Your task to perform on an android device: change the clock display to analog Image 0: 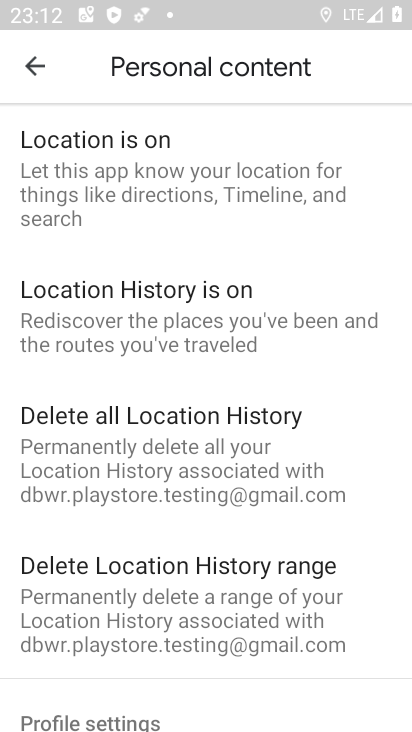
Step 0: click (41, 59)
Your task to perform on an android device: change the clock display to analog Image 1: 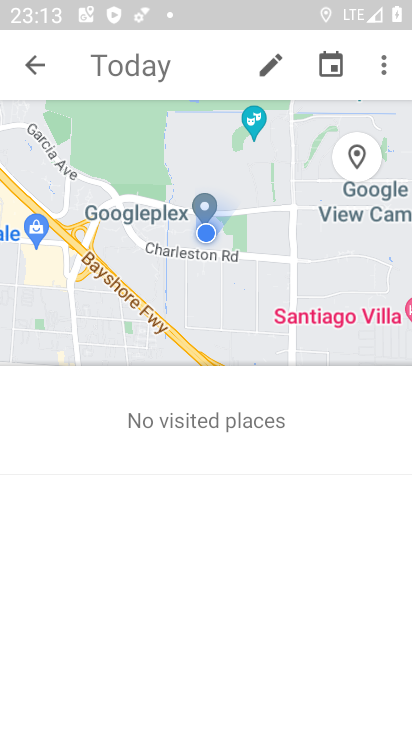
Step 1: click (36, 56)
Your task to perform on an android device: change the clock display to analog Image 2: 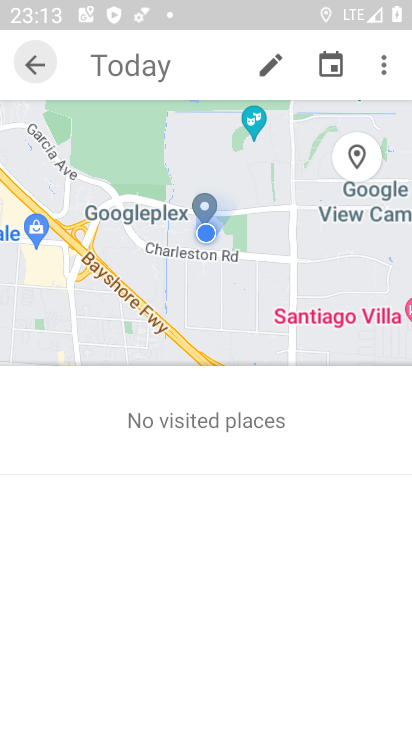
Step 2: click (36, 60)
Your task to perform on an android device: change the clock display to analog Image 3: 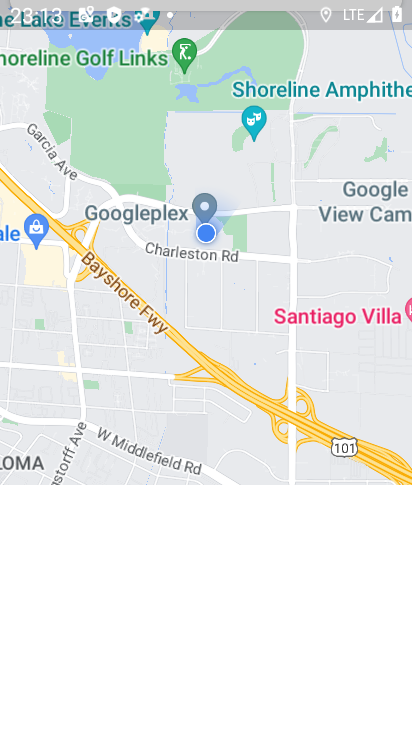
Step 3: click (36, 60)
Your task to perform on an android device: change the clock display to analog Image 4: 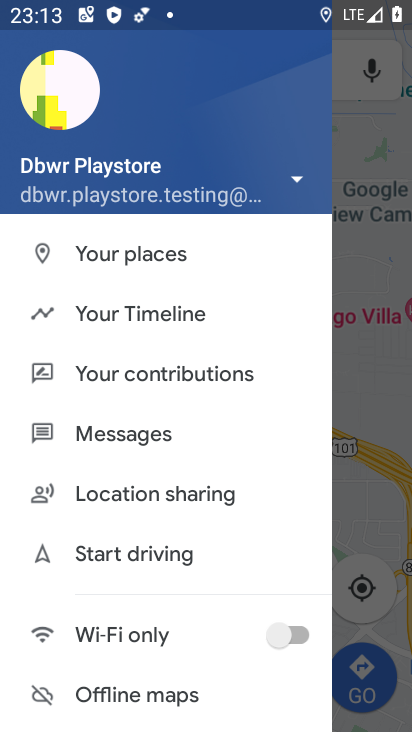
Step 4: press back button
Your task to perform on an android device: change the clock display to analog Image 5: 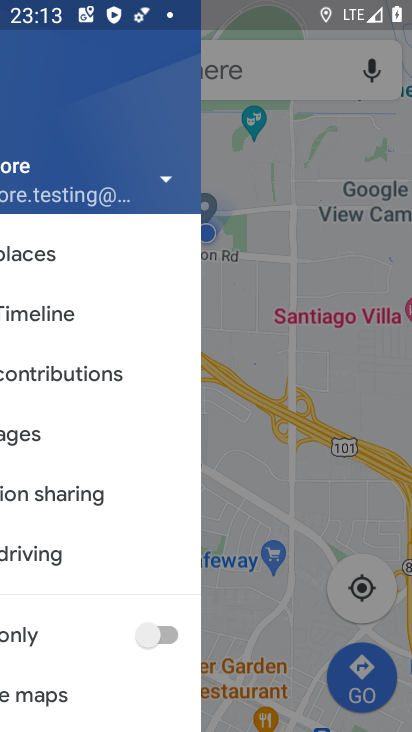
Step 5: press back button
Your task to perform on an android device: change the clock display to analog Image 6: 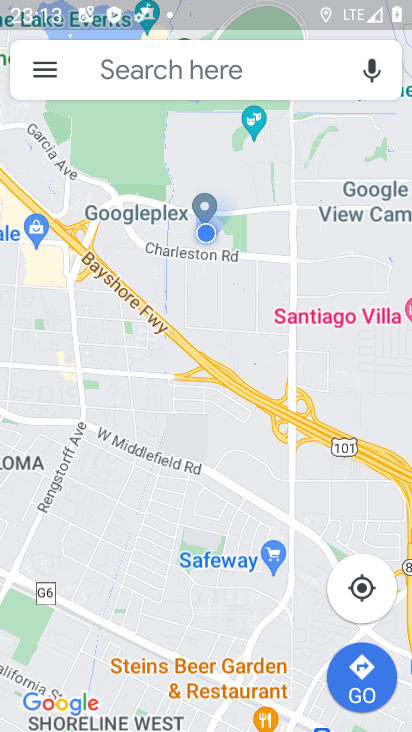
Step 6: press back button
Your task to perform on an android device: change the clock display to analog Image 7: 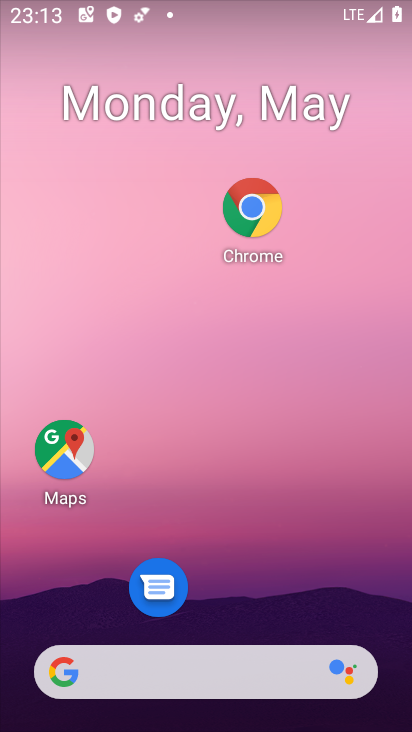
Step 7: drag from (263, 597) to (143, 164)
Your task to perform on an android device: change the clock display to analog Image 8: 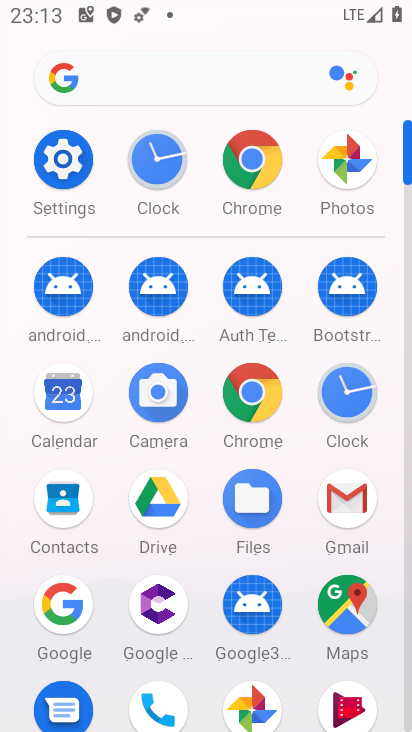
Step 8: click (340, 378)
Your task to perform on an android device: change the clock display to analog Image 9: 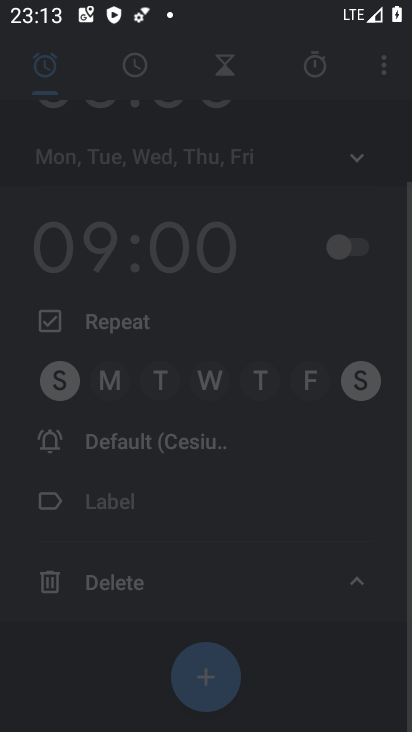
Step 9: click (333, 374)
Your task to perform on an android device: change the clock display to analog Image 10: 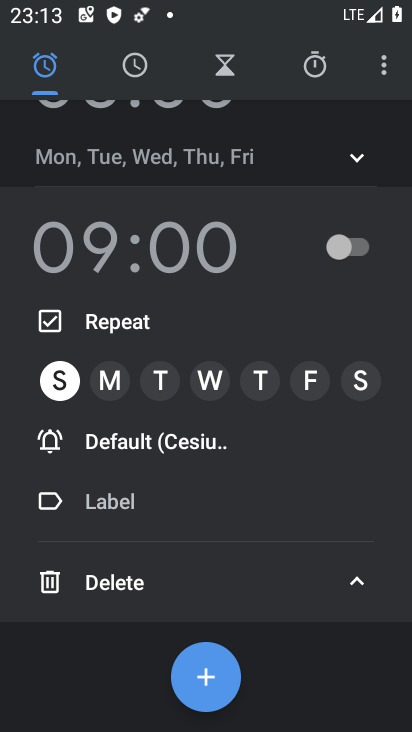
Step 10: click (388, 70)
Your task to perform on an android device: change the clock display to analog Image 11: 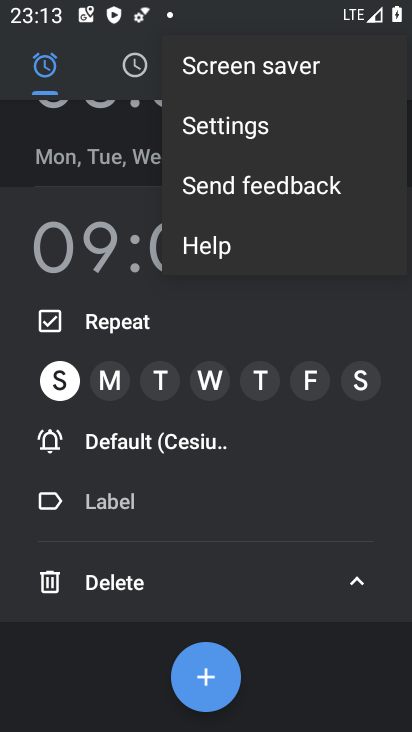
Step 11: click (218, 127)
Your task to perform on an android device: change the clock display to analog Image 12: 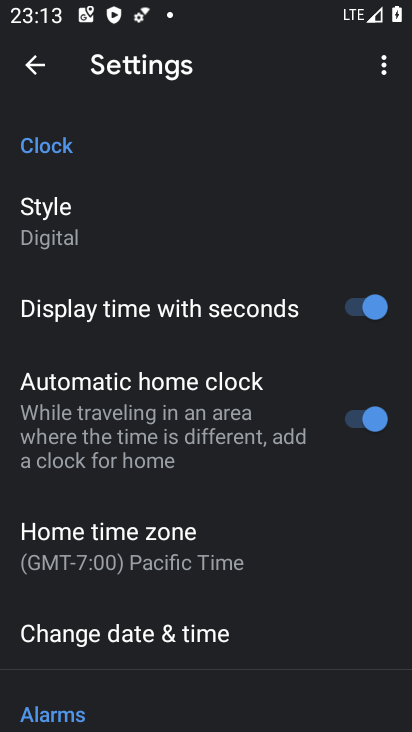
Step 12: click (133, 233)
Your task to perform on an android device: change the clock display to analog Image 13: 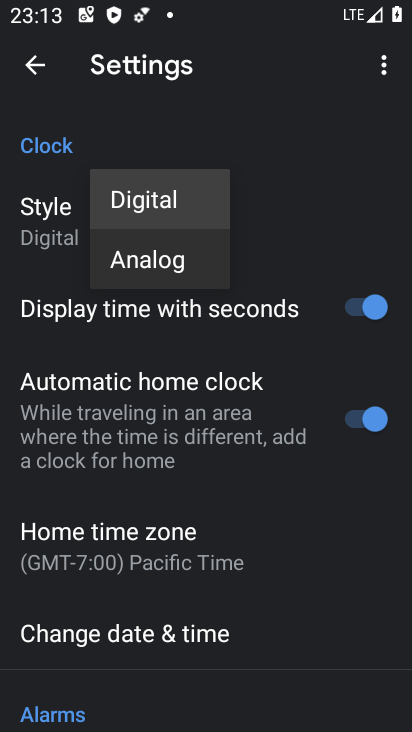
Step 13: click (141, 251)
Your task to perform on an android device: change the clock display to analog Image 14: 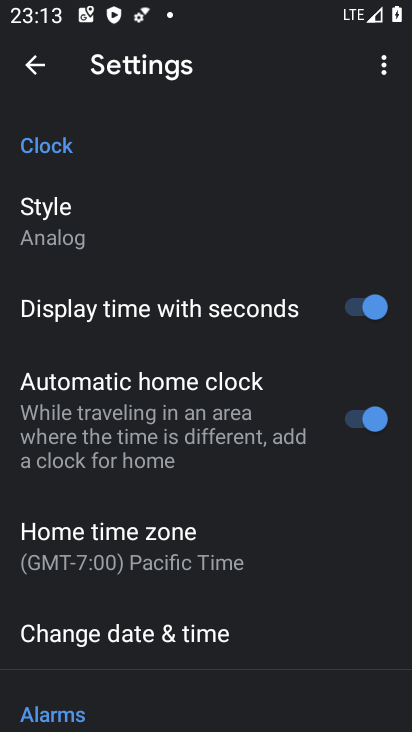
Step 14: task complete